Your task to perform on an android device: set an alarm Image 0: 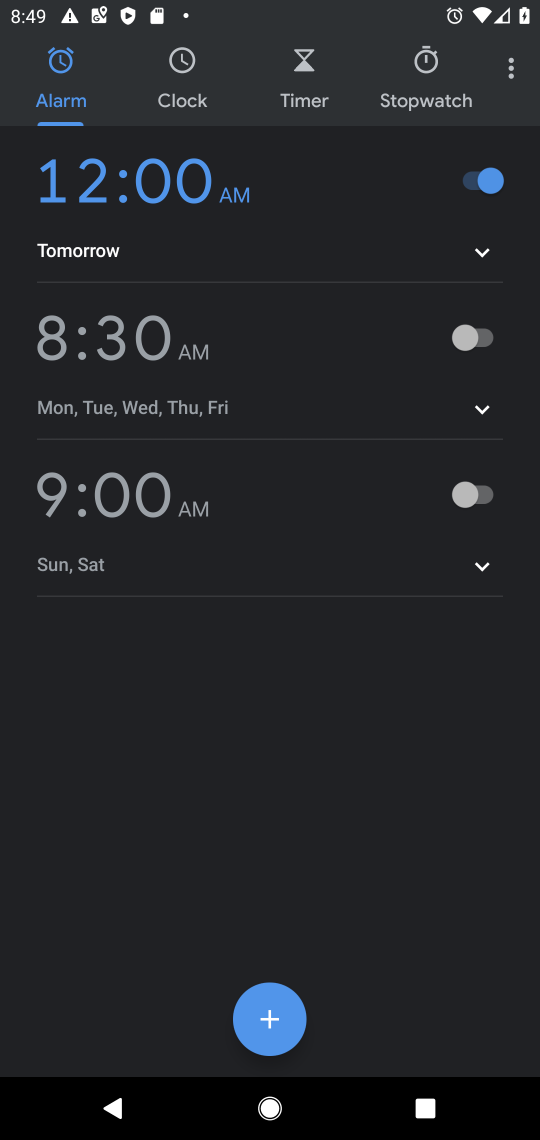
Step 0: press home button
Your task to perform on an android device: set an alarm Image 1: 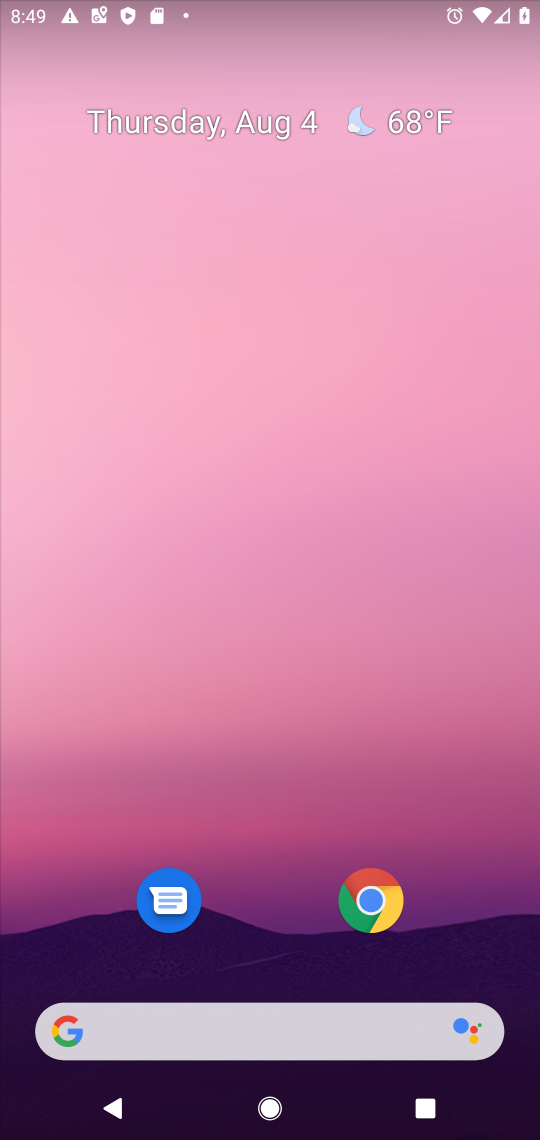
Step 1: drag from (250, 1005) to (262, 299)
Your task to perform on an android device: set an alarm Image 2: 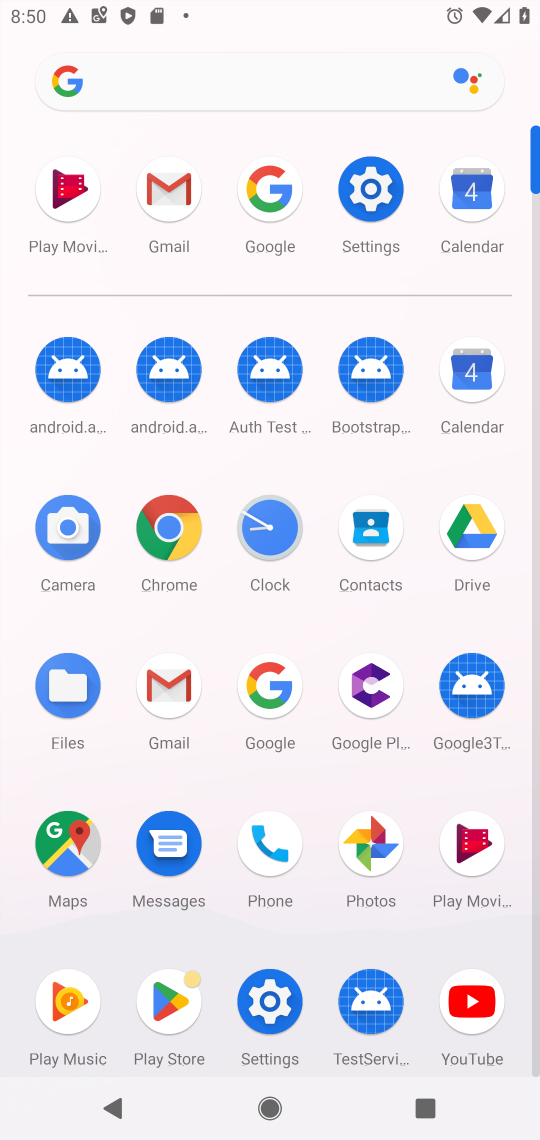
Step 2: click (274, 529)
Your task to perform on an android device: set an alarm Image 3: 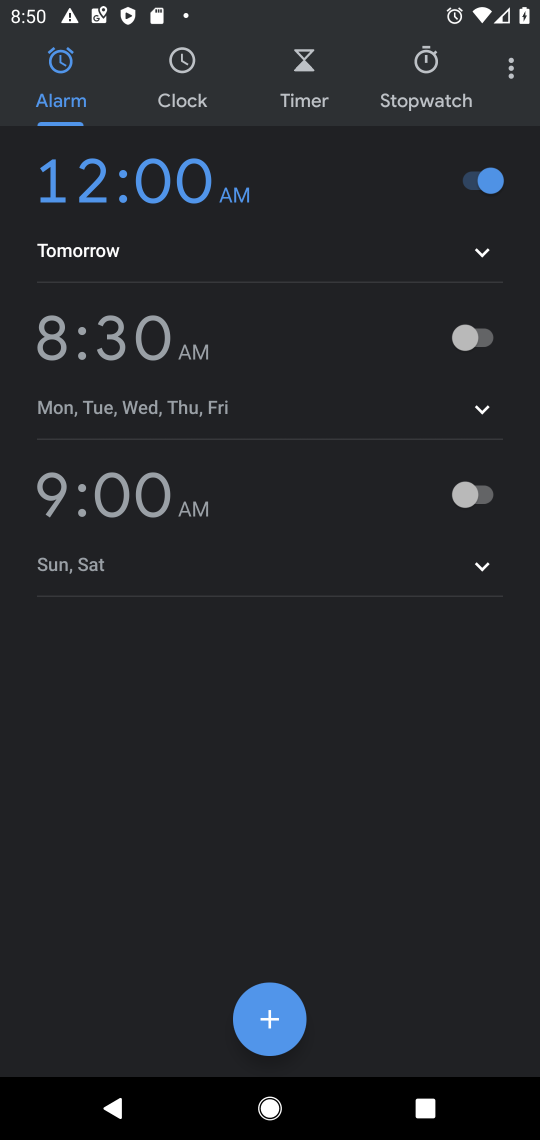
Step 3: click (271, 1016)
Your task to perform on an android device: set an alarm Image 4: 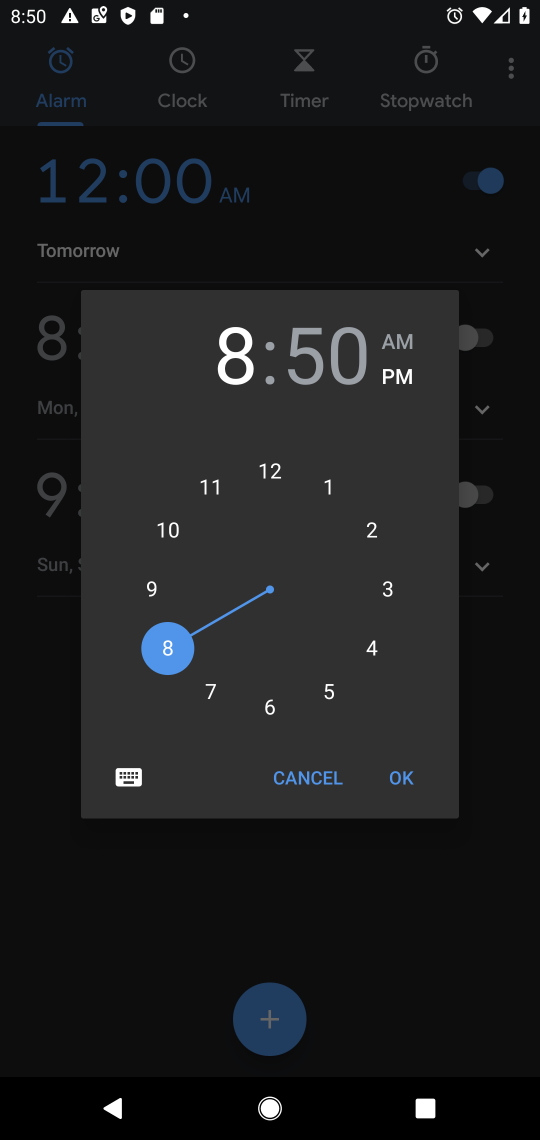
Step 4: click (274, 469)
Your task to perform on an android device: set an alarm Image 5: 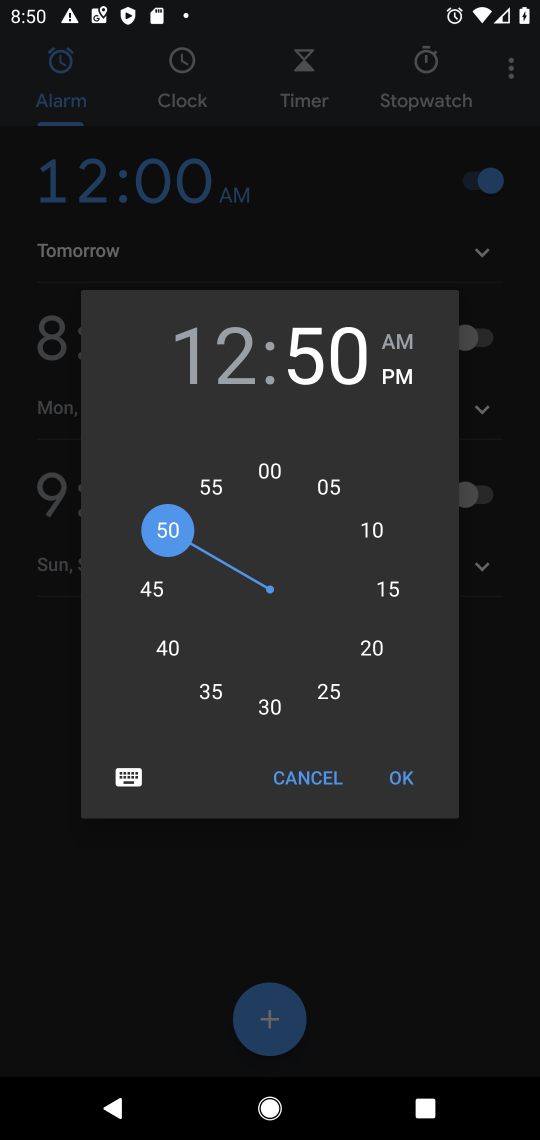
Step 5: click (274, 469)
Your task to perform on an android device: set an alarm Image 6: 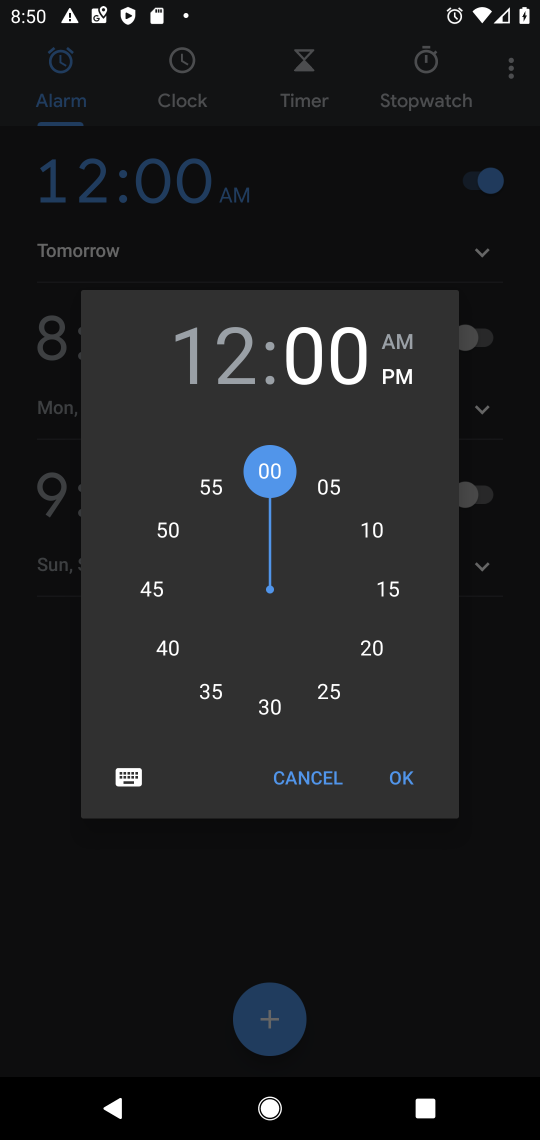
Step 6: click (390, 346)
Your task to perform on an android device: set an alarm Image 7: 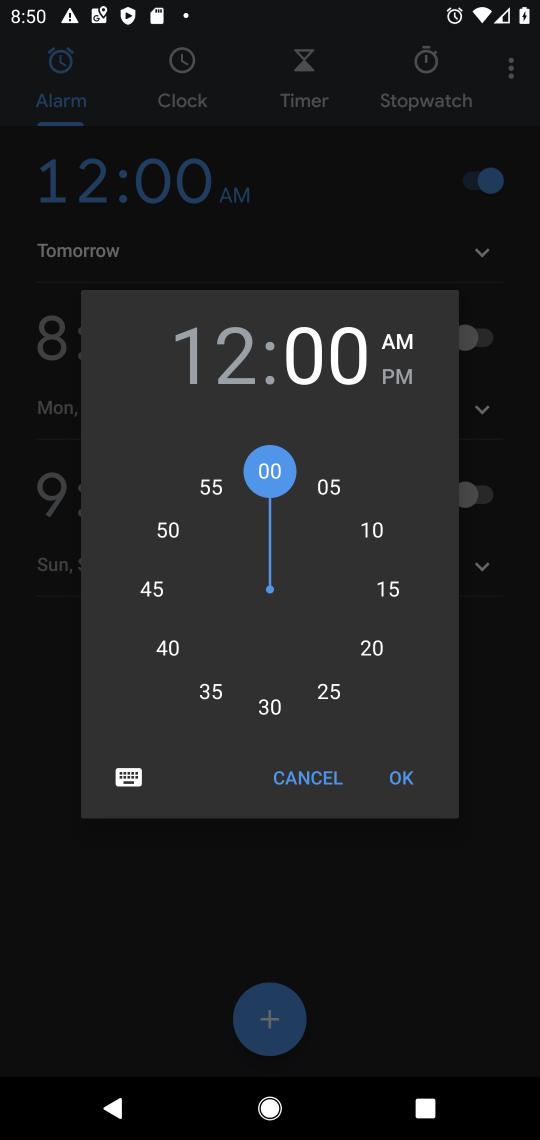
Step 7: click (400, 779)
Your task to perform on an android device: set an alarm Image 8: 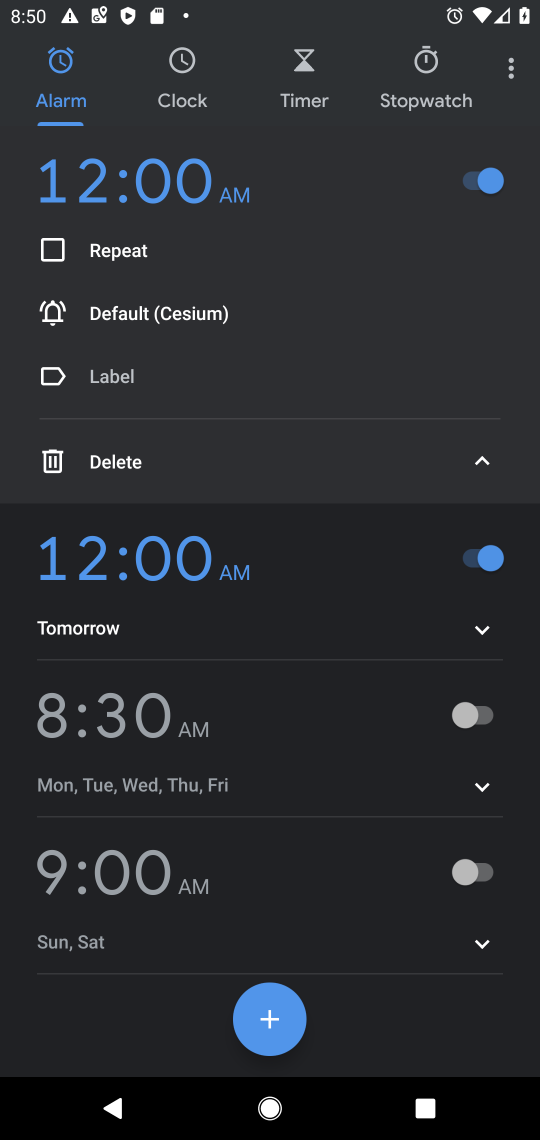
Step 8: task complete